Your task to perform on an android device: turn pop-ups on in chrome Image 0: 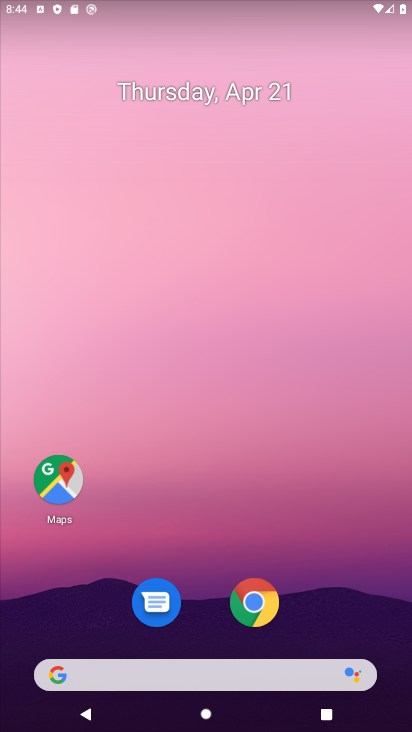
Step 0: click (257, 607)
Your task to perform on an android device: turn pop-ups on in chrome Image 1: 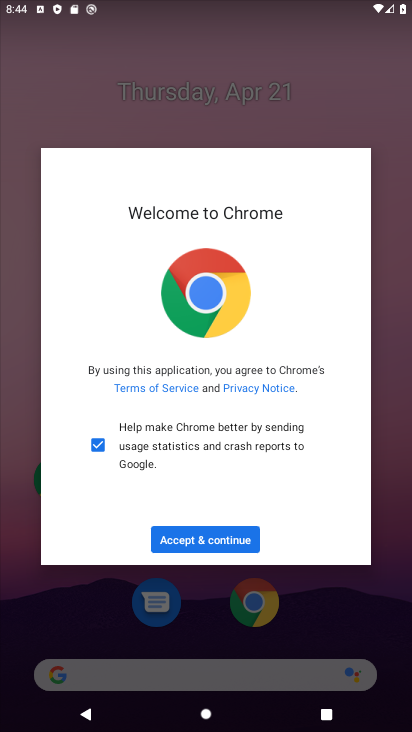
Step 1: click (209, 550)
Your task to perform on an android device: turn pop-ups on in chrome Image 2: 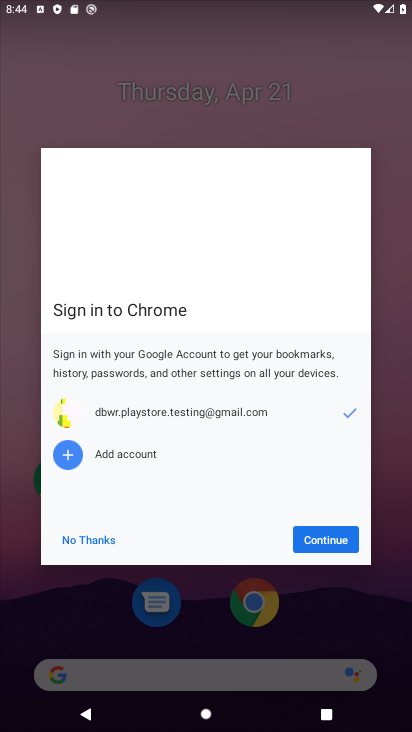
Step 2: click (348, 539)
Your task to perform on an android device: turn pop-ups on in chrome Image 3: 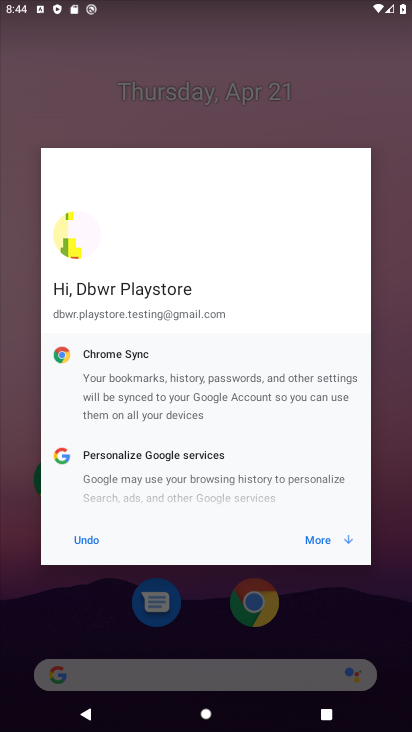
Step 3: click (348, 539)
Your task to perform on an android device: turn pop-ups on in chrome Image 4: 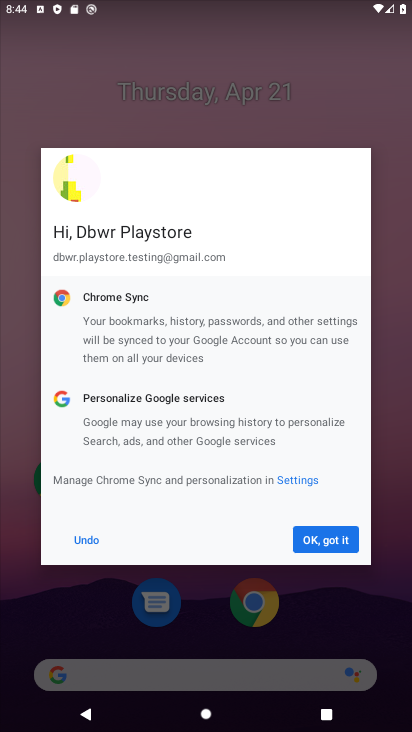
Step 4: click (348, 539)
Your task to perform on an android device: turn pop-ups on in chrome Image 5: 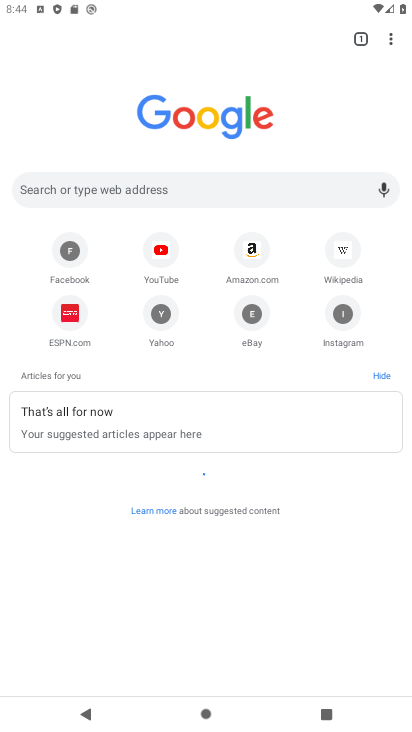
Step 5: click (393, 32)
Your task to perform on an android device: turn pop-ups on in chrome Image 6: 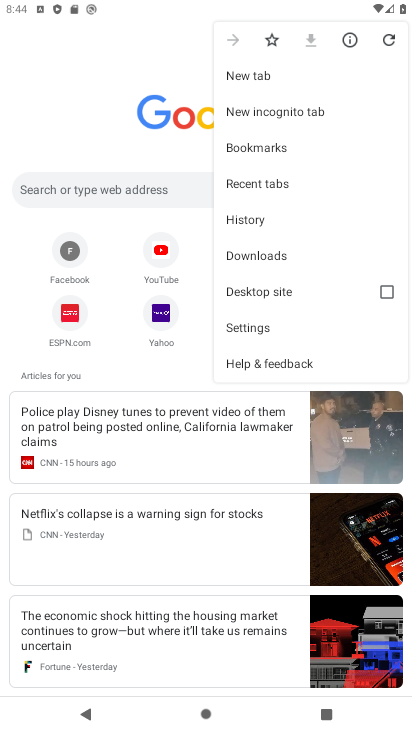
Step 6: click (315, 320)
Your task to perform on an android device: turn pop-ups on in chrome Image 7: 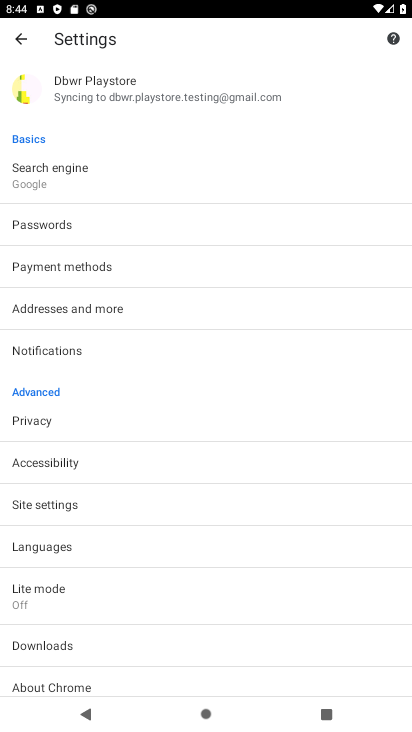
Step 7: click (193, 517)
Your task to perform on an android device: turn pop-ups on in chrome Image 8: 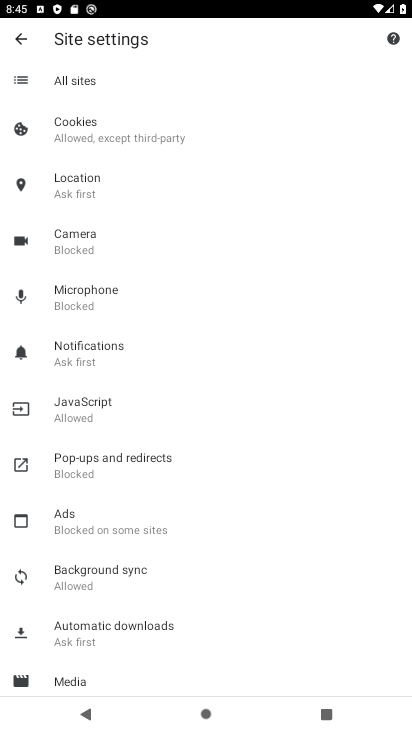
Step 8: click (116, 447)
Your task to perform on an android device: turn pop-ups on in chrome Image 9: 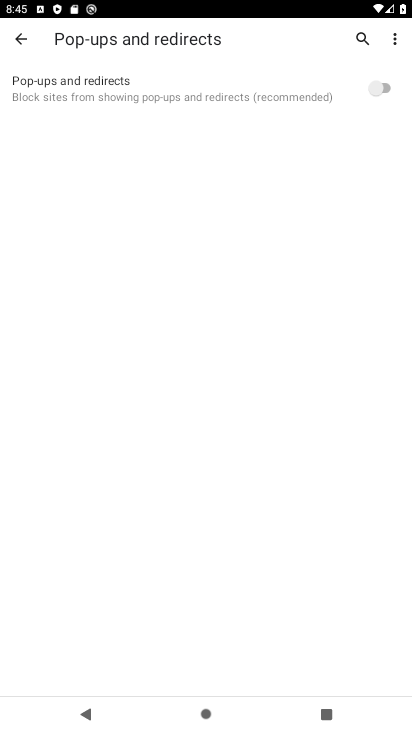
Step 9: click (383, 95)
Your task to perform on an android device: turn pop-ups on in chrome Image 10: 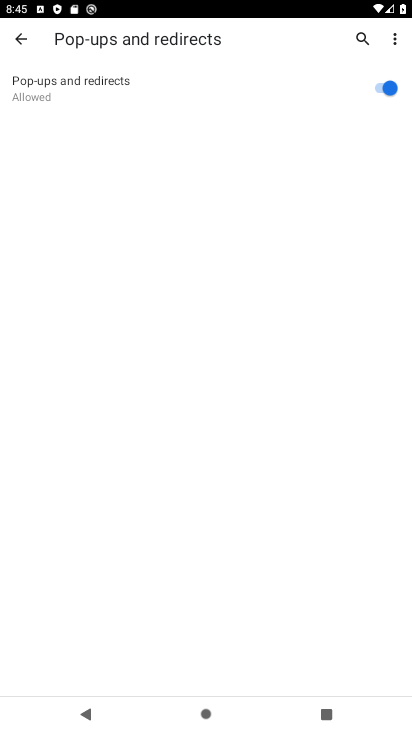
Step 10: task complete